Your task to perform on an android device: change the clock display to analog Image 0: 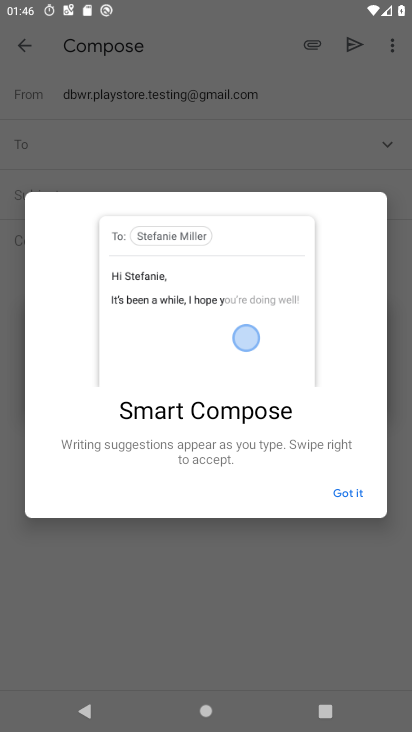
Step 0: press home button
Your task to perform on an android device: change the clock display to analog Image 1: 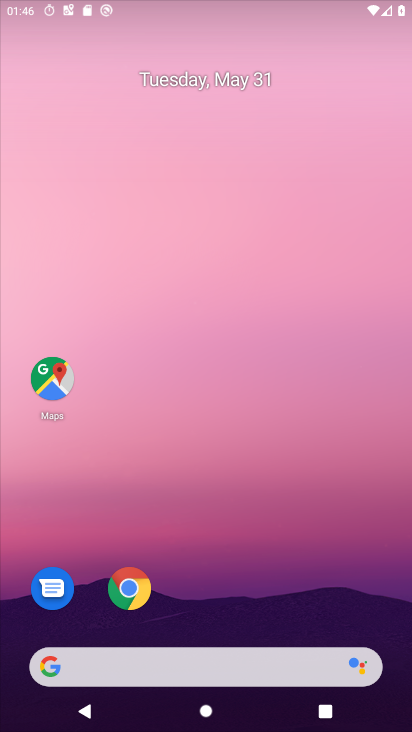
Step 1: drag from (296, 646) to (271, 20)
Your task to perform on an android device: change the clock display to analog Image 2: 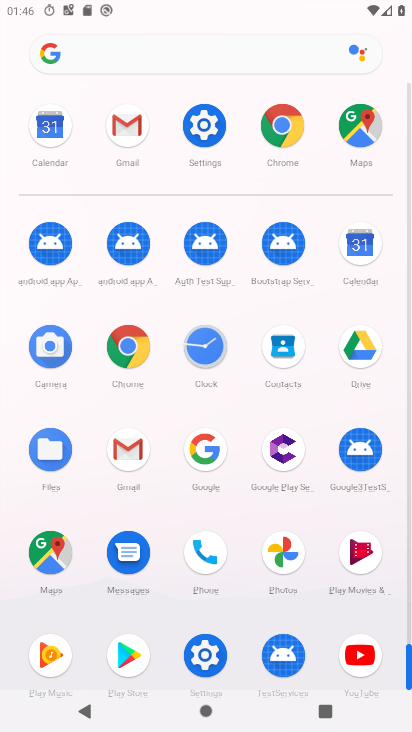
Step 2: click (192, 347)
Your task to perform on an android device: change the clock display to analog Image 3: 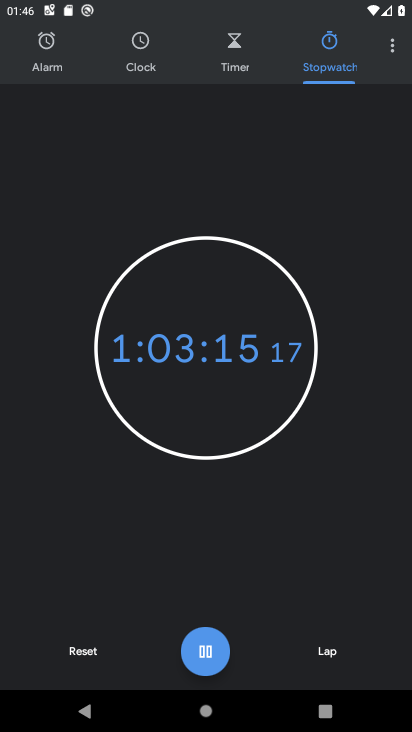
Step 3: click (382, 47)
Your task to perform on an android device: change the clock display to analog Image 4: 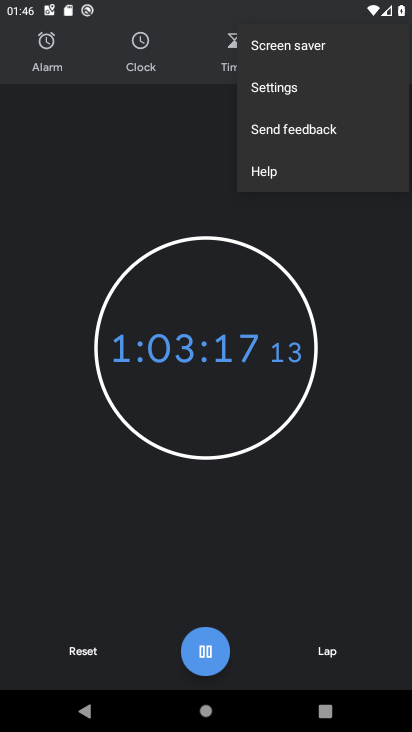
Step 4: click (288, 84)
Your task to perform on an android device: change the clock display to analog Image 5: 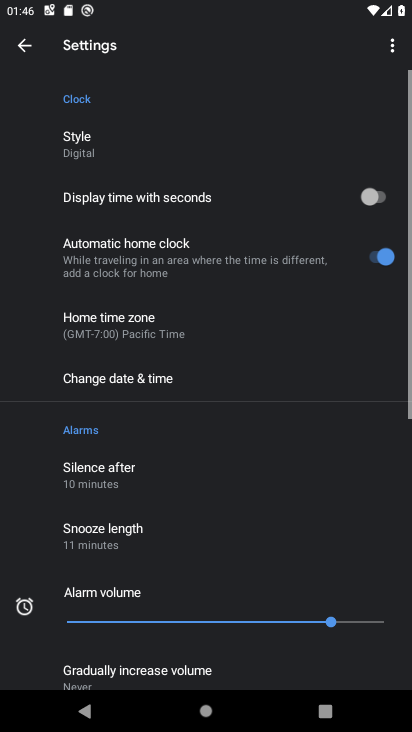
Step 5: click (126, 156)
Your task to perform on an android device: change the clock display to analog Image 6: 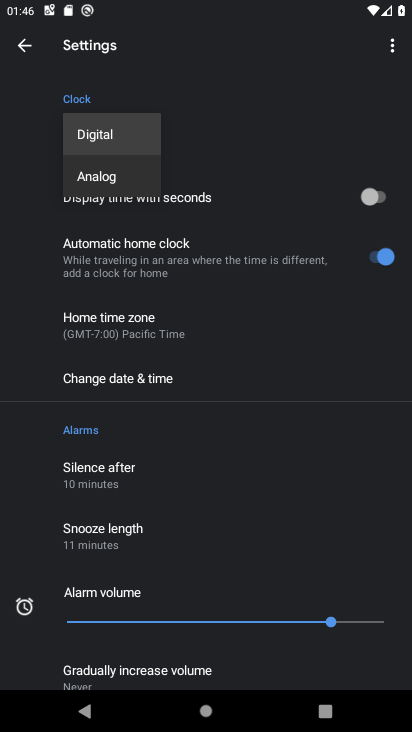
Step 6: click (126, 165)
Your task to perform on an android device: change the clock display to analog Image 7: 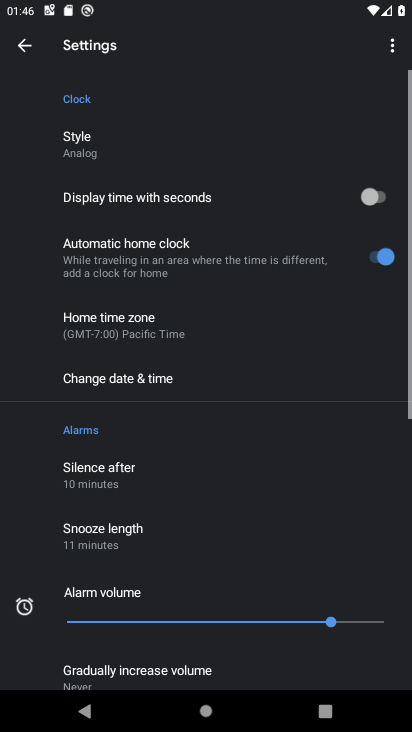
Step 7: task complete